Your task to perform on an android device: add a label to a message in the gmail app Image 0: 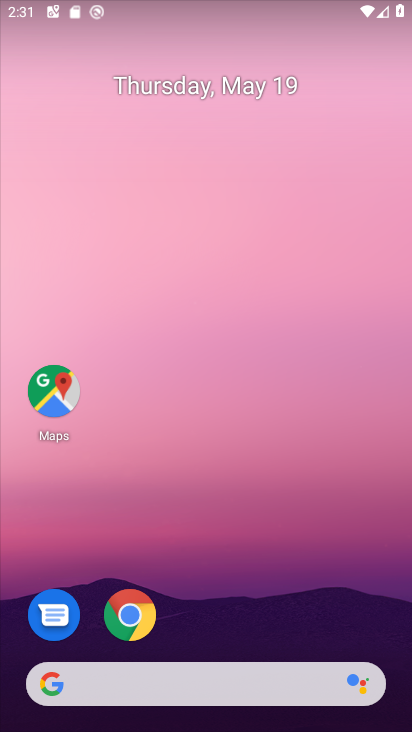
Step 0: drag from (234, 528) to (192, 3)
Your task to perform on an android device: add a label to a message in the gmail app Image 1: 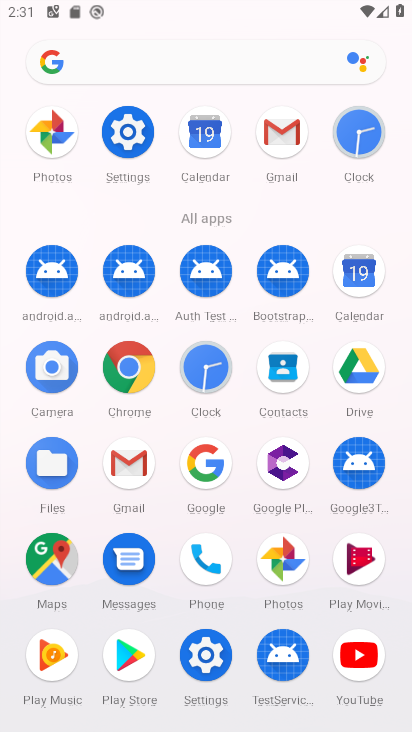
Step 1: drag from (9, 581) to (7, 278)
Your task to perform on an android device: add a label to a message in the gmail app Image 2: 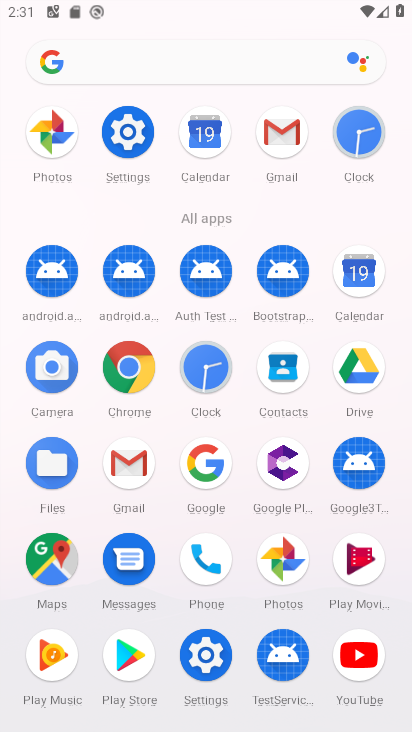
Step 2: drag from (24, 541) to (24, 339)
Your task to perform on an android device: add a label to a message in the gmail app Image 3: 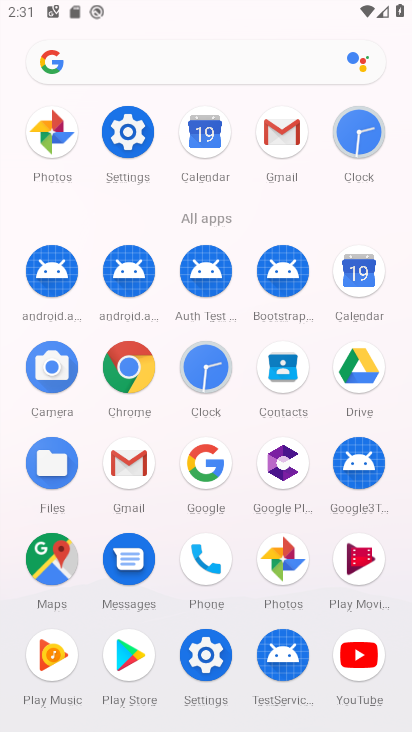
Step 3: click (283, 131)
Your task to perform on an android device: add a label to a message in the gmail app Image 4: 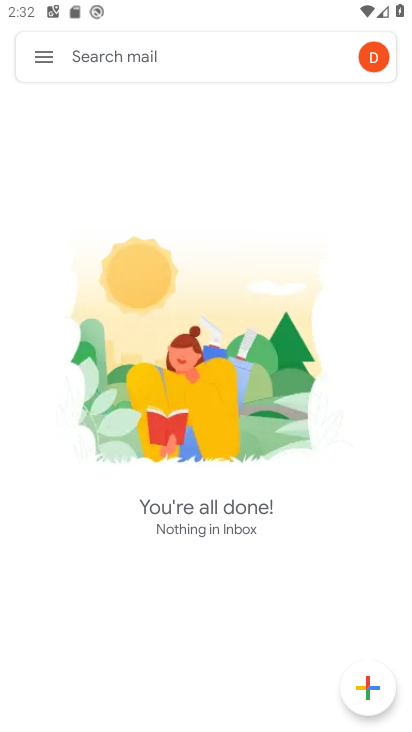
Step 4: click (40, 57)
Your task to perform on an android device: add a label to a message in the gmail app Image 5: 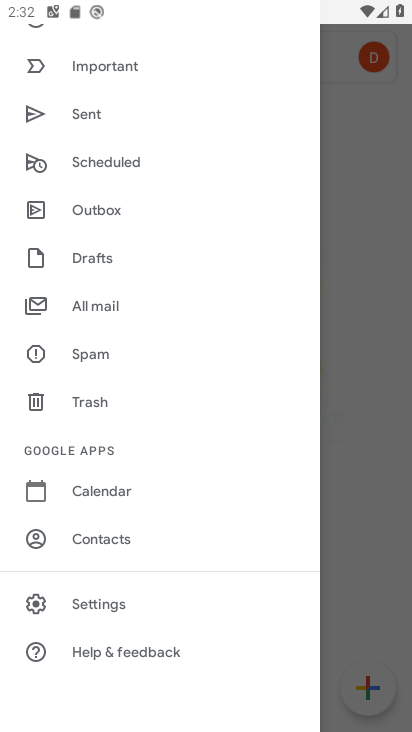
Step 5: click (78, 297)
Your task to perform on an android device: add a label to a message in the gmail app Image 6: 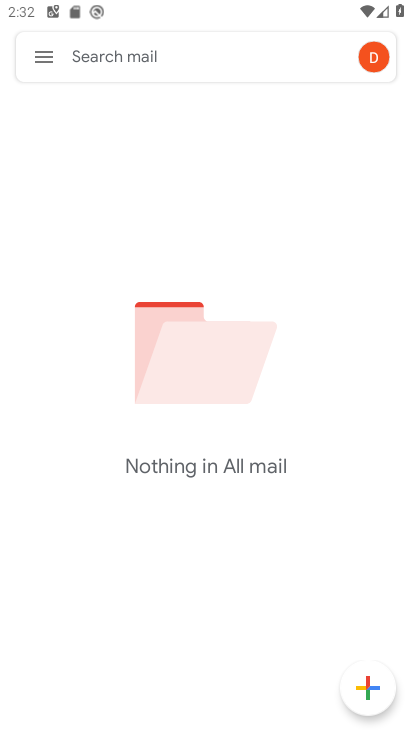
Step 6: click (34, 48)
Your task to perform on an android device: add a label to a message in the gmail app Image 7: 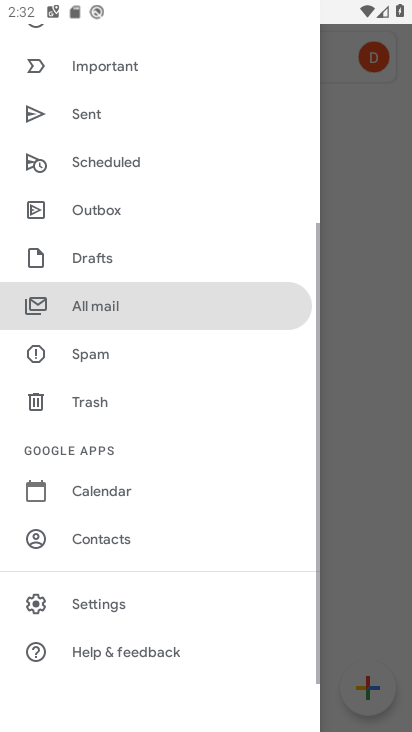
Step 7: drag from (172, 123) to (209, 605)
Your task to perform on an android device: add a label to a message in the gmail app Image 8: 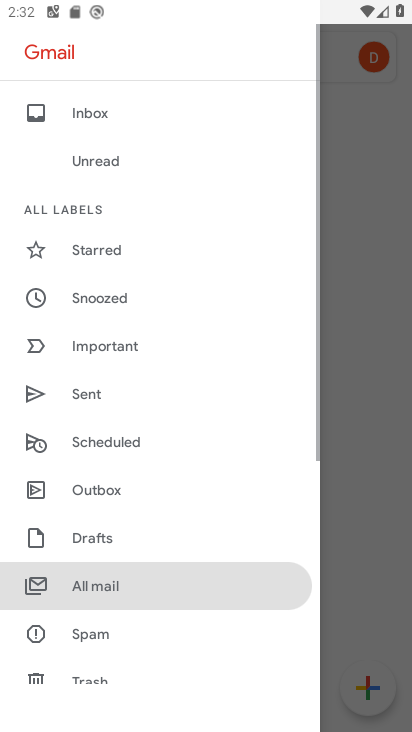
Step 8: click (113, 102)
Your task to perform on an android device: add a label to a message in the gmail app Image 9: 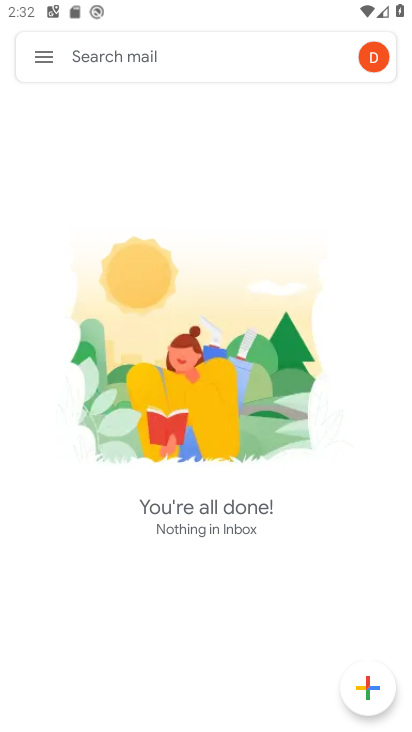
Step 9: click (43, 40)
Your task to perform on an android device: add a label to a message in the gmail app Image 10: 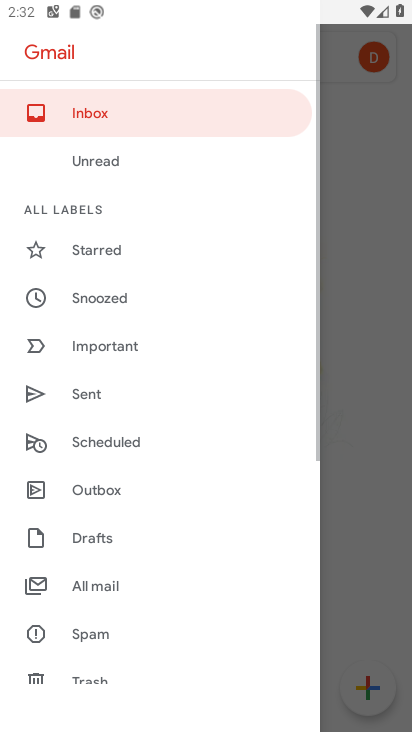
Step 10: drag from (157, 571) to (170, 112)
Your task to perform on an android device: add a label to a message in the gmail app Image 11: 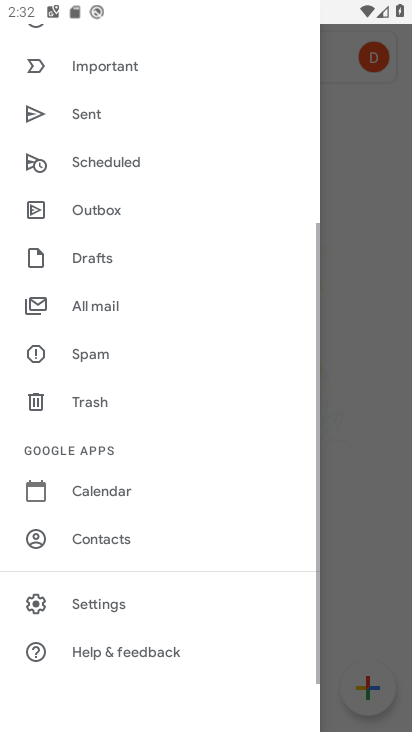
Step 11: click (87, 606)
Your task to perform on an android device: add a label to a message in the gmail app Image 12: 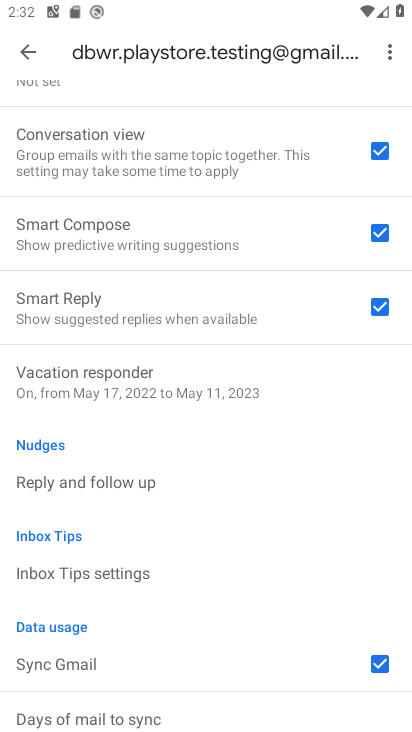
Step 12: click (31, 51)
Your task to perform on an android device: add a label to a message in the gmail app Image 13: 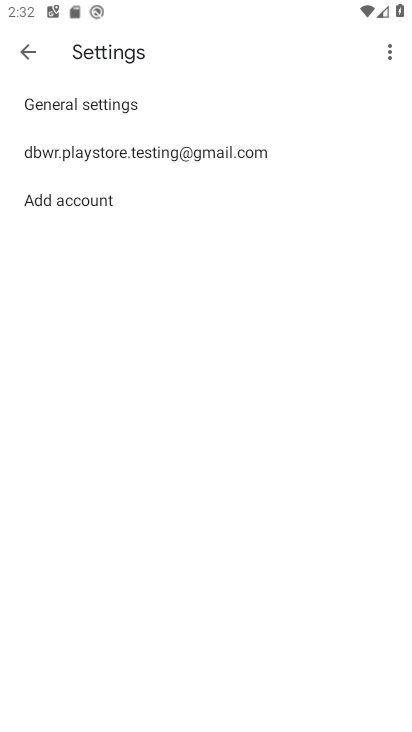
Step 13: click (31, 51)
Your task to perform on an android device: add a label to a message in the gmail app Image 14: 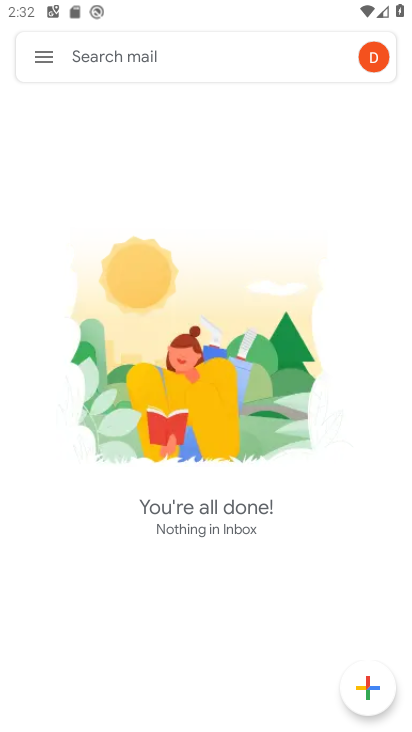
Step 14: click (42, 56)
Your task to perform on an android device: add a label to a message in the gmail app Image 15: 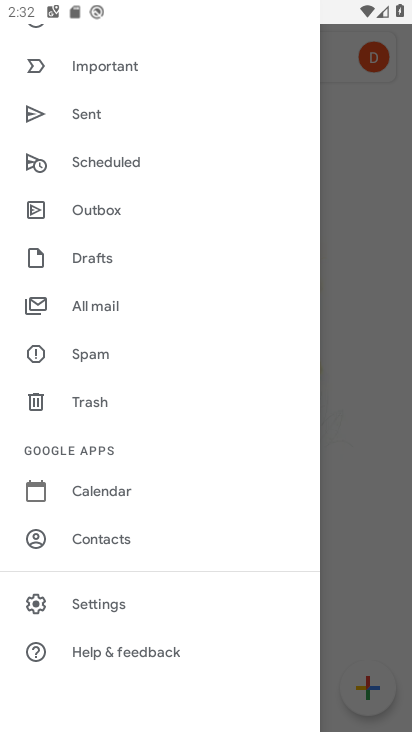
Step 15: task complete